Your task to perform on an android device: Set the phone to "Do not disturb". Image 0: 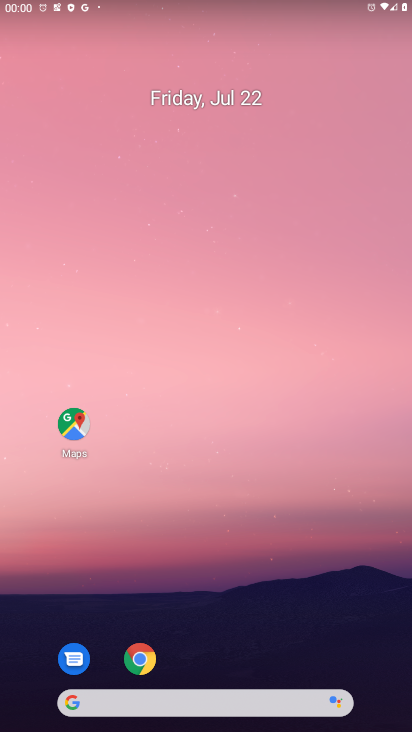
Step 0: drag from (209, 706) to (268, 298)
Your task to perform on an android device: Set the phone to "Do not disturb". Image 1: 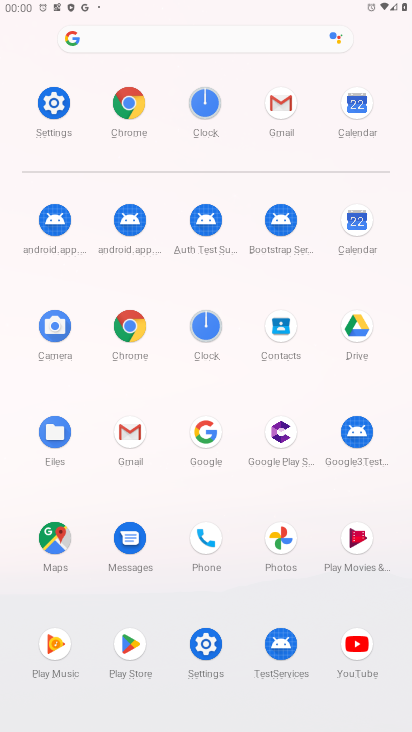
Step 1: click (207, 639)
Your task to perform on an android device: Set the phone to "Do not disturb". Image 2: 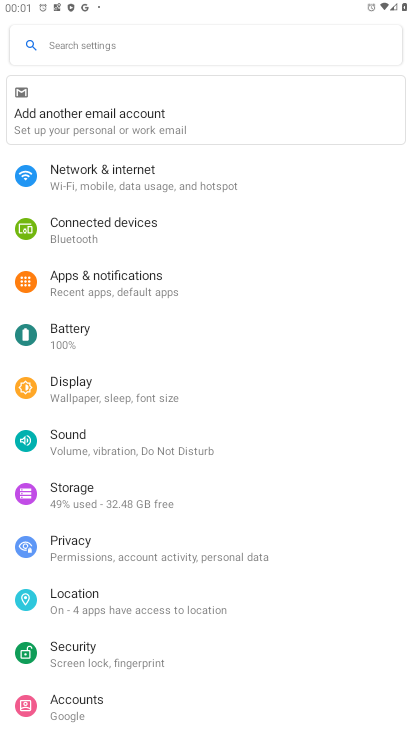
Step 2: click (116, 453)
Your task to perform on an android device: Set the phone to "Do not disturb". Image 3: 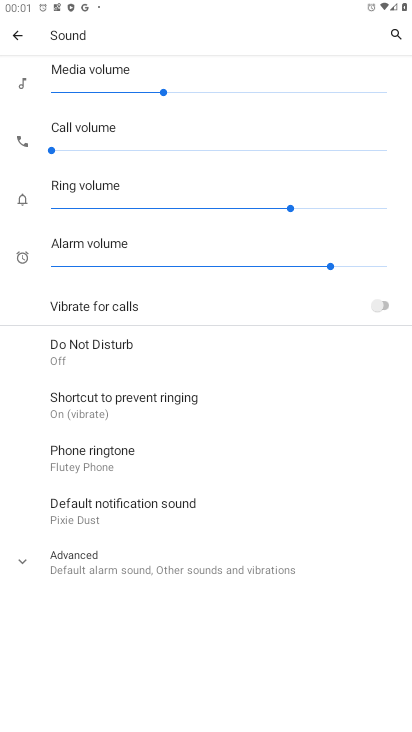
Step 3: click (92, 352)
Your task to perform on an android device: Set the phone to "Do not disturb". Image 4: 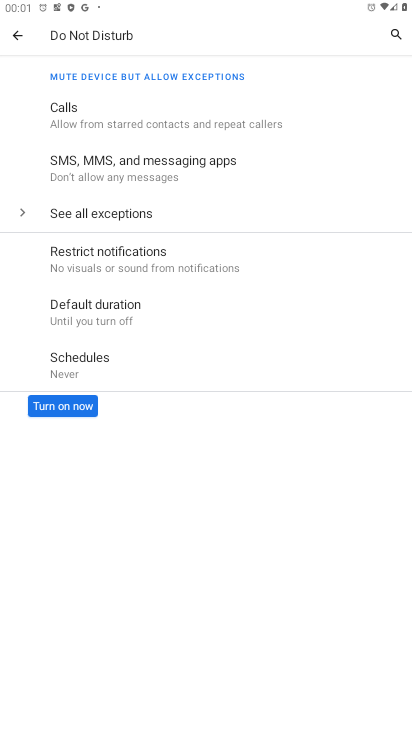
Step 4: click (63, 404)
Your task to perform on an android device: Set the phone to "Do not disturb". Image 5: 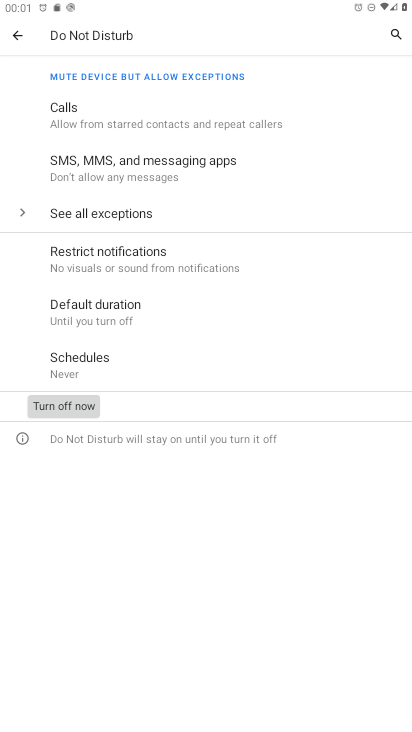
Step 5: task complete